Your task to perform on an android device: Open battery settings Image 0: 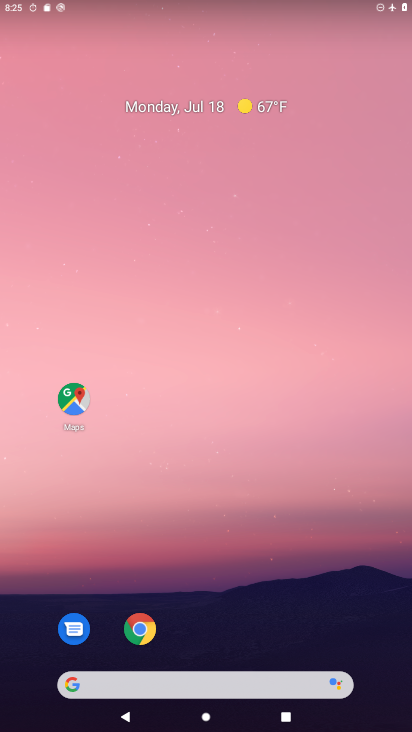
Step 0: drag from (207, 671) to (188, 5)
Your task to perform on an android device: Open battery settings Image 1: 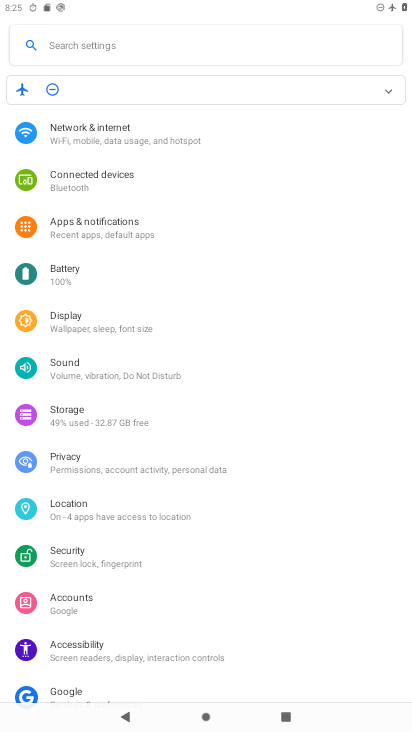
Step 1: drag from (147, 511) to (117, 183)
Your task to perform on an android device: Open battery settings Image 2: 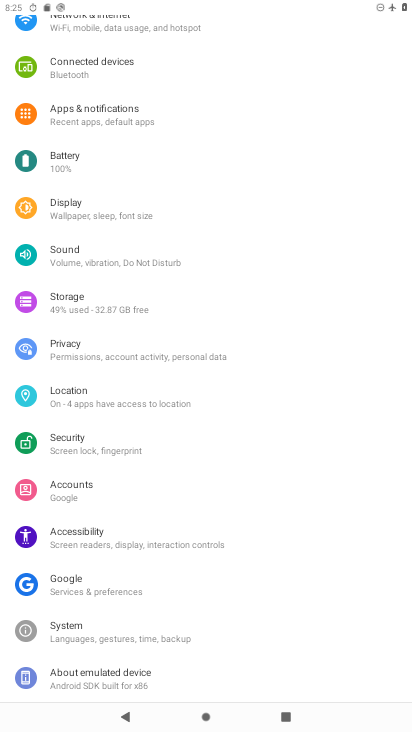
Step 2: click (61, 168)
Your task to perform on an android device: Open battery settings Image 3: 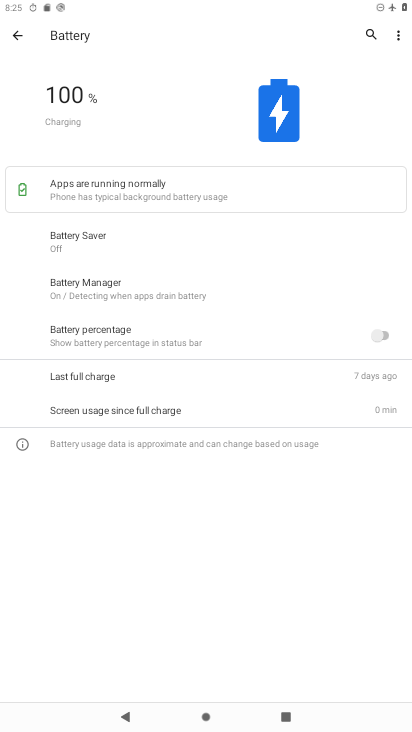
Step 3: task complete